Your task to perform on an android device: Play the last video I watched on Youtube Image 0: 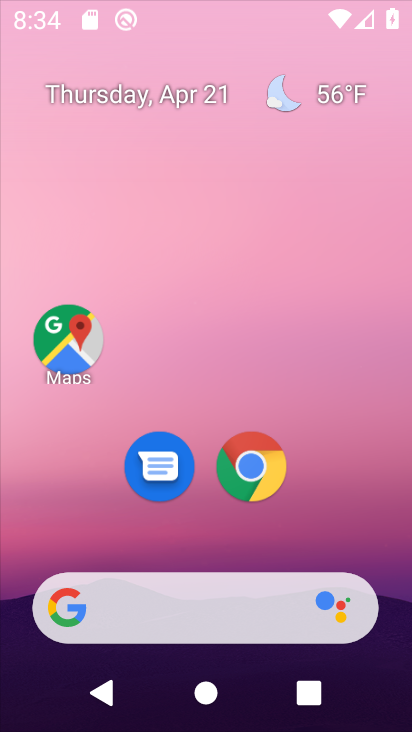
Step 0: drag from (168, 524) to (226, 58)
Your task to perform on an android device: Play the last video I watched on Youtube Image 1: 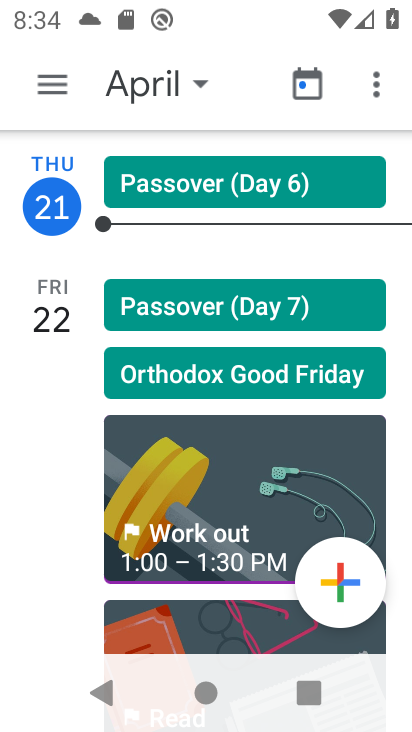
Step 1: press back button
Your task to perform on an android device: Play the last video I watched on Youtube Image 2: 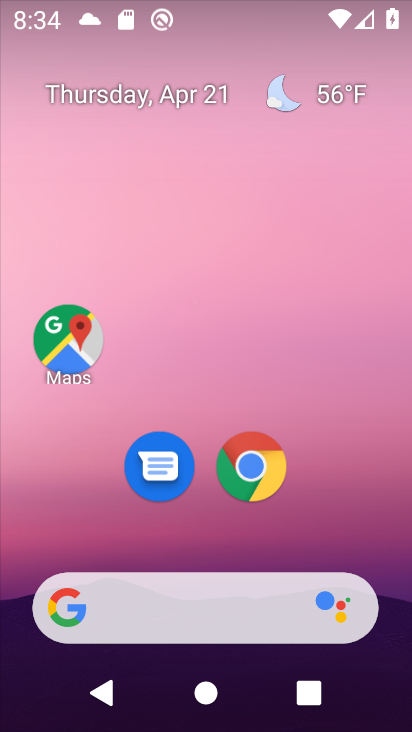
Step 2: drag from (170, 546) to (301, 54)
Your task to perform on an android device: Play the last video I watched on Youtube Image 3: 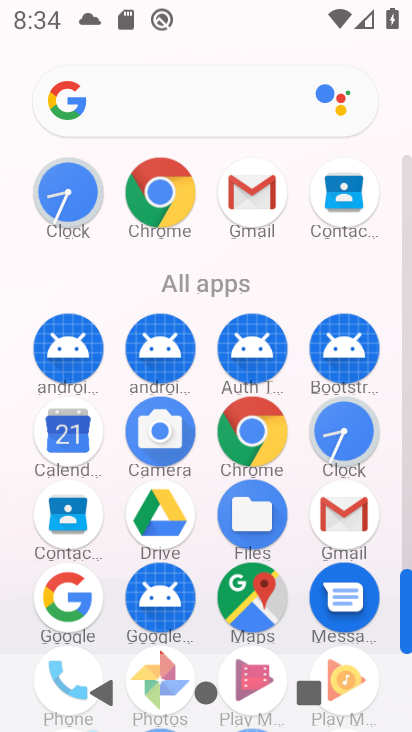
Step 3: drag from (215, 618) to (271, 252)
Your task to perform on an android device: Play the last video I watched on Youtube Image 4: 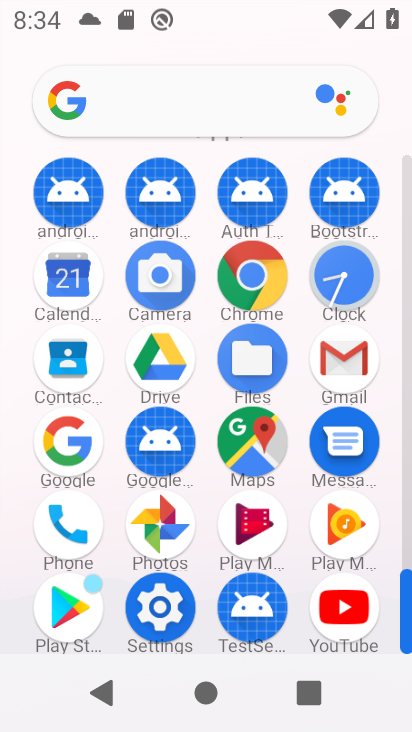
Step 4: click (330, 607)
Your task to perform on an android device: Play the last video I watched on Youtube Image 5: 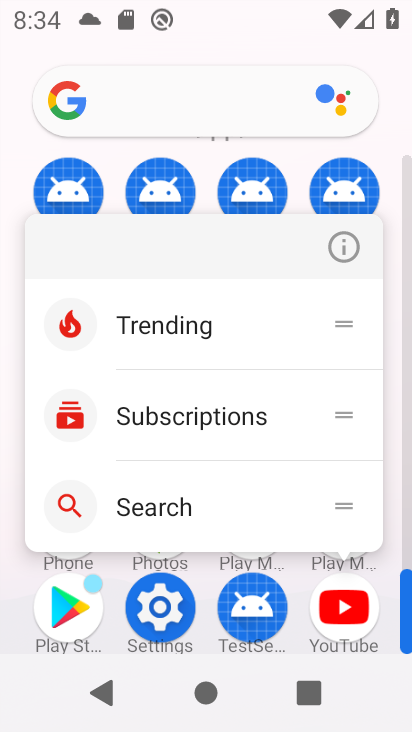
Step 5: click (360, 618)
Your task to perform on an android device: Play the last video I watched on Youtube Image 6: 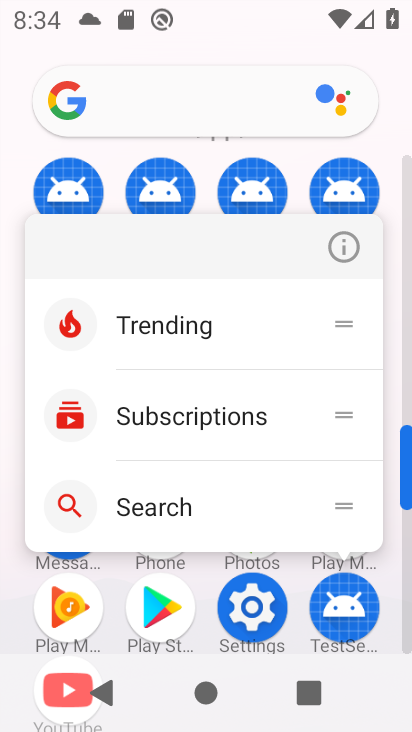
Step 6: drag from (325, 669) to (408, 361)
Your task to perform on an android device: Play the last video I watched on Youtube Image 7: 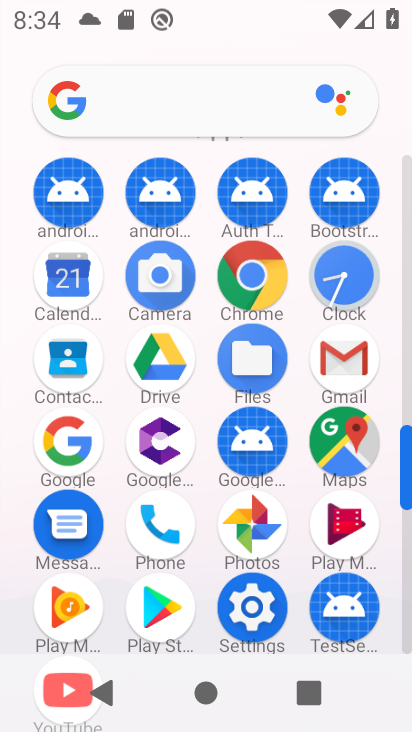
Step 7: drag from (183, 665) to (343, 170)
Your task to perform on an android device: Play the last video I watched on Youtube Image 8: 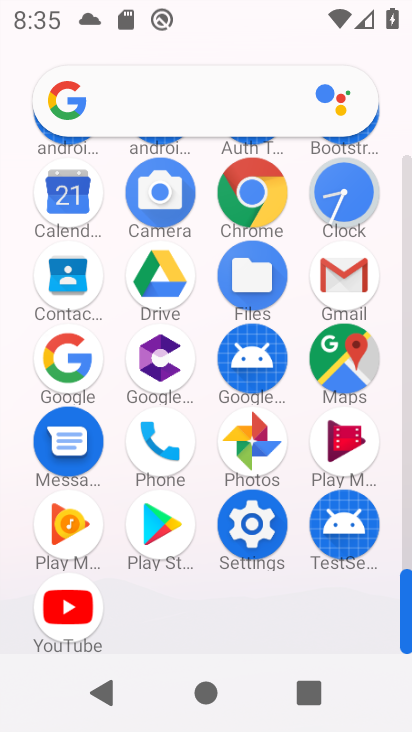
Step 8: click (74, 584)
Your task to perform on an android device: Play the last video I watched on Youtube Image 9: 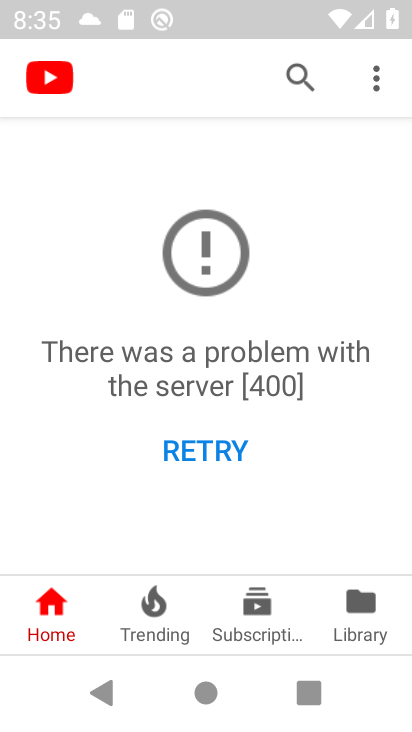
Step 9: click (351, 610)
Your task to perform on an android device: Play the last video I watched on Youtube Image 10: 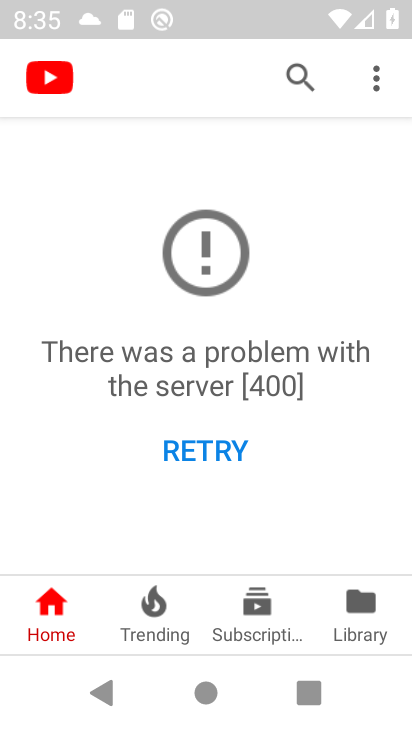
Step 10: task complete